Your task to perform on an android device: What's on my calendar tomorrow? Image 0: 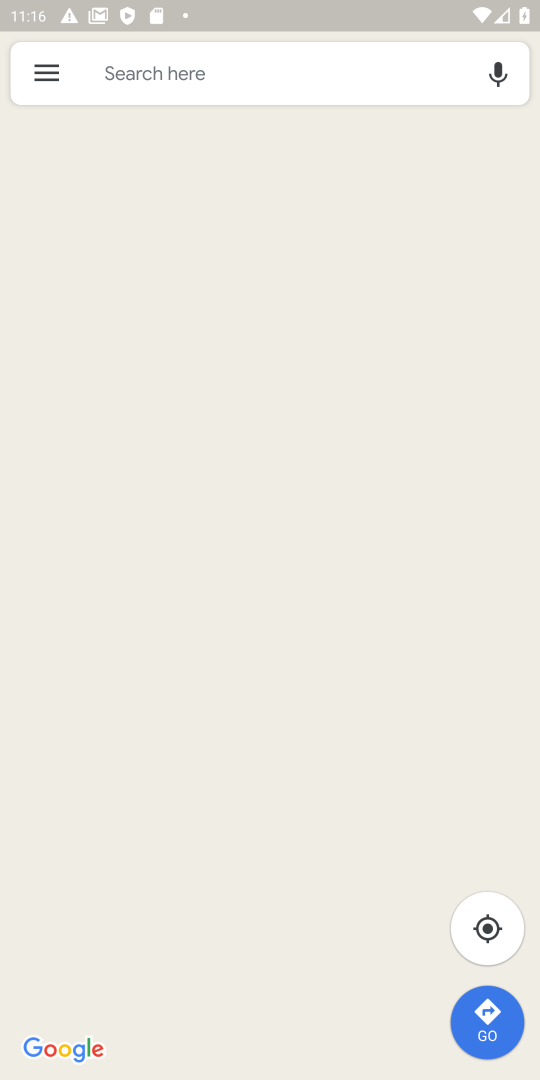
Step 0: click (254, 264)
Your task to perform on an android device: What's on my calendar tomorrow? Image 1: 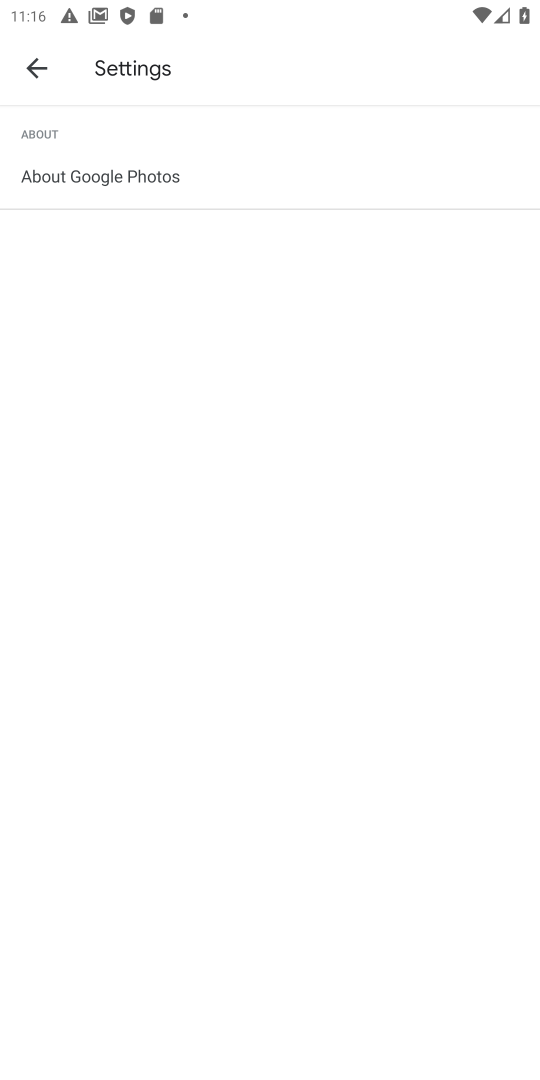
Step 1: press back button
Your task to perform on an android device: What's on my calendar tomorrow? Image 2: 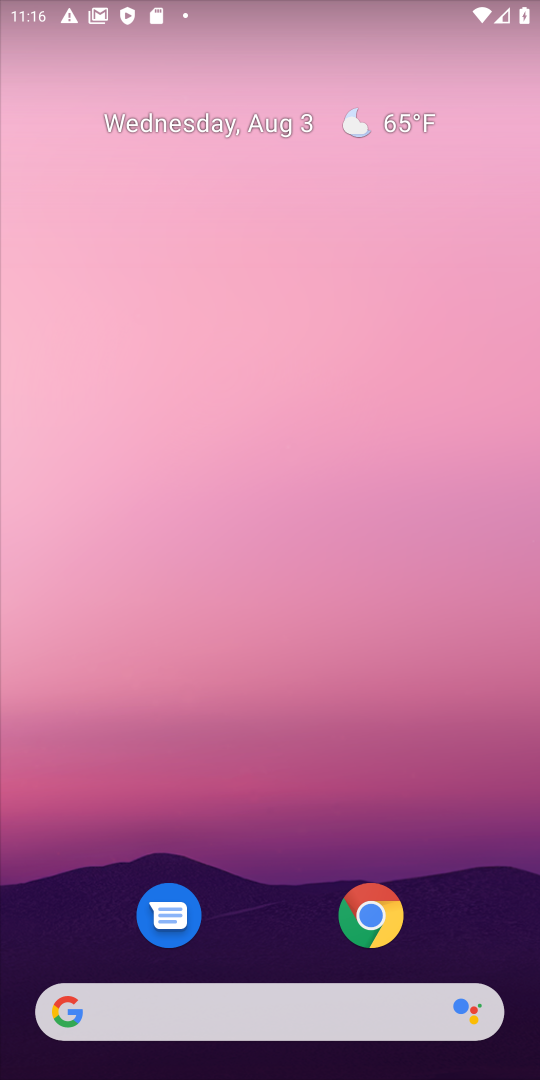
Step 2: drag from (267, 826) to (318, 120)
Your task to perform on an android device: What's on my calendar tomorrow? Image 3: 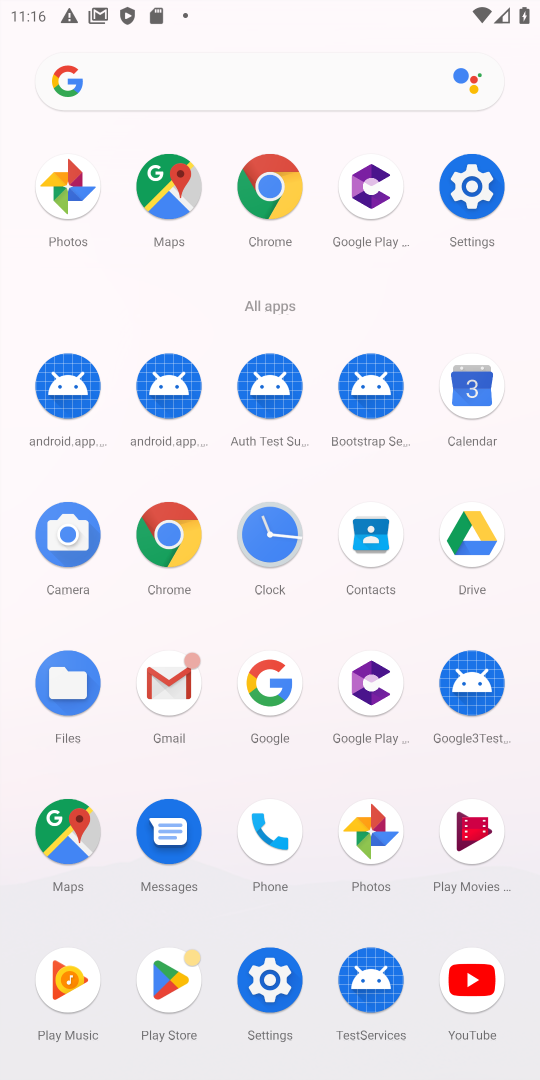
Step 3: click (453, 390)
Your task to perform on an android device: What's on my calendar tomorrow? Image 4: 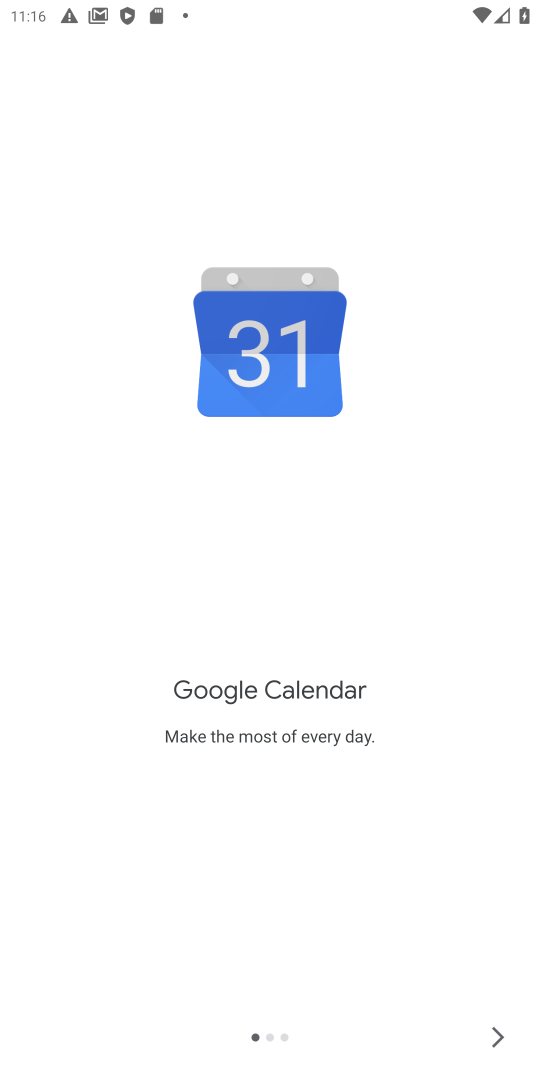
Step 4: click (499, 1044)
Your task to perform on an android device: What's on my calendar tomorrow? Image 5: 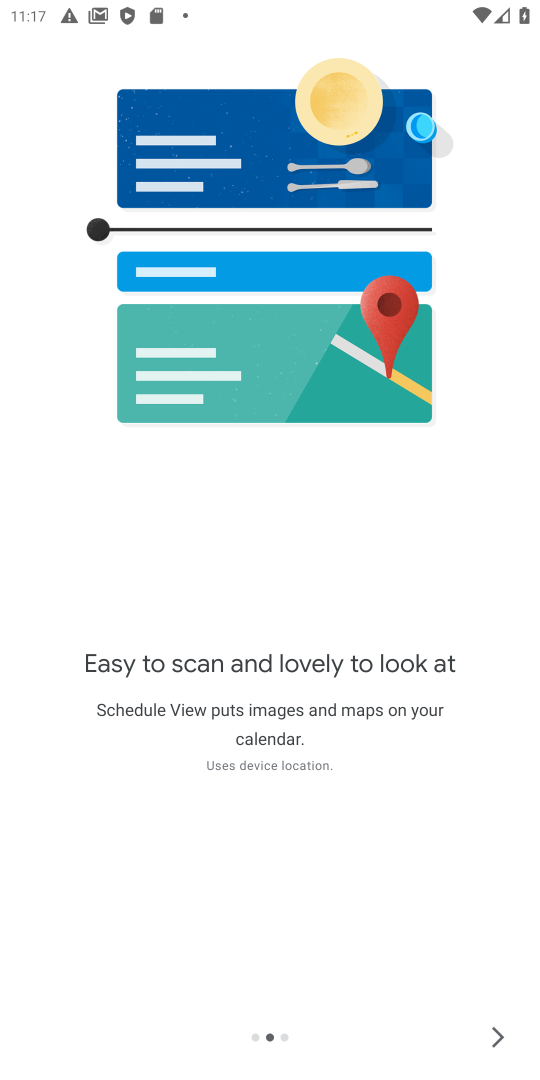
Step 5: click (499, 1044)
Your task to perform on an android device: What's on my calendar tomorrow? Image 6: 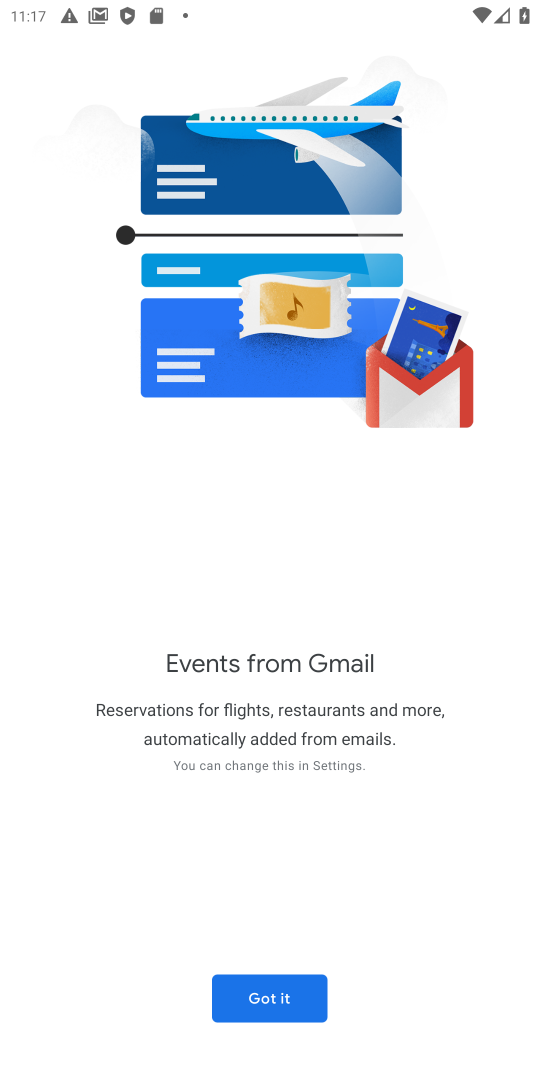
Step 6: click (265, 1006)
Your task to perform on an android device: What's on my calendar tomorrow? Image 7: 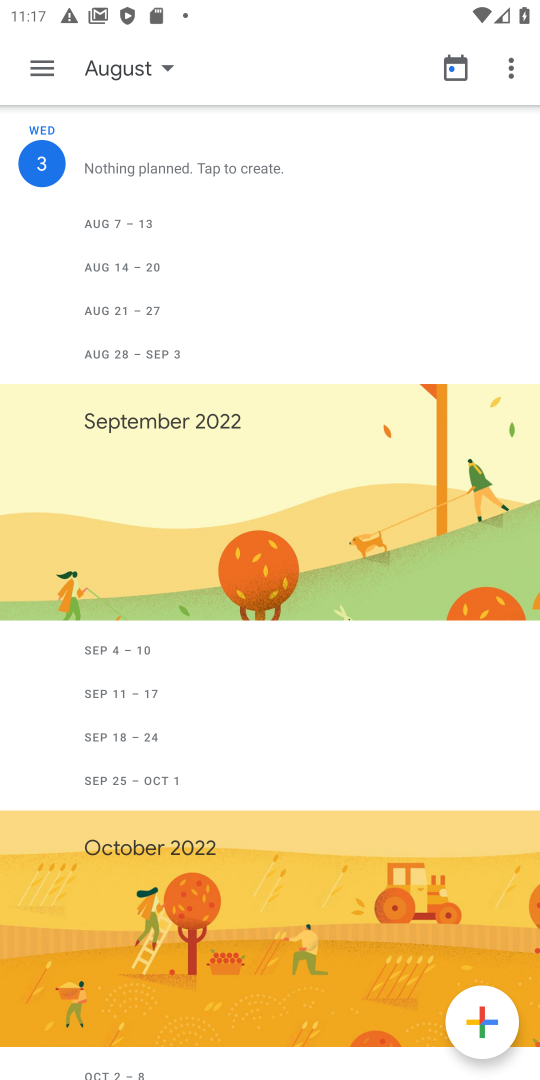
Step 7: click (87, 66)
Your task to perform on an android device: What's on my calendar tomorrow? Image 8: 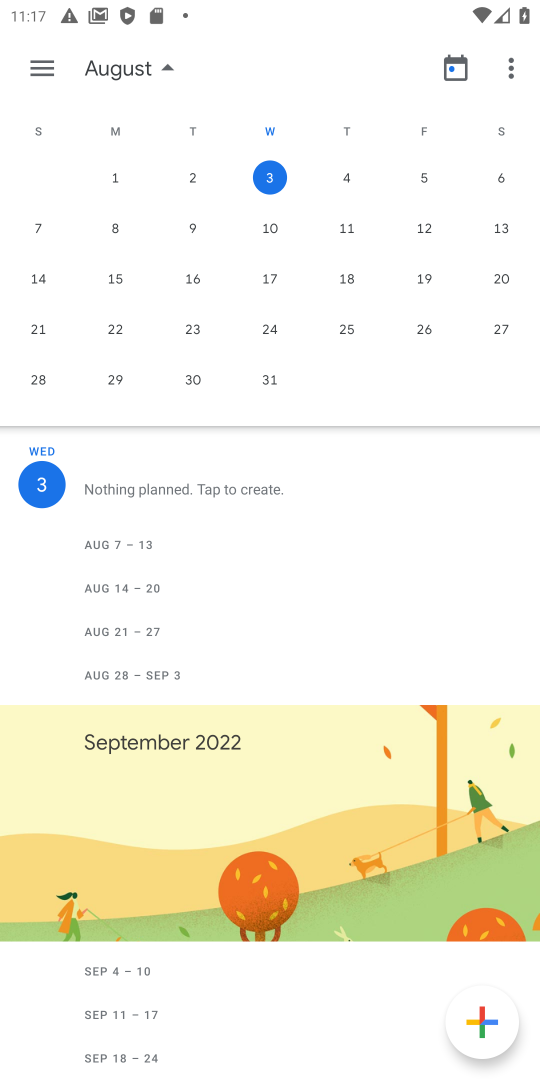
Step 8: click (344, 183)
Your task to perform on an android device: What's on my calendar tomorrow? Image 9: 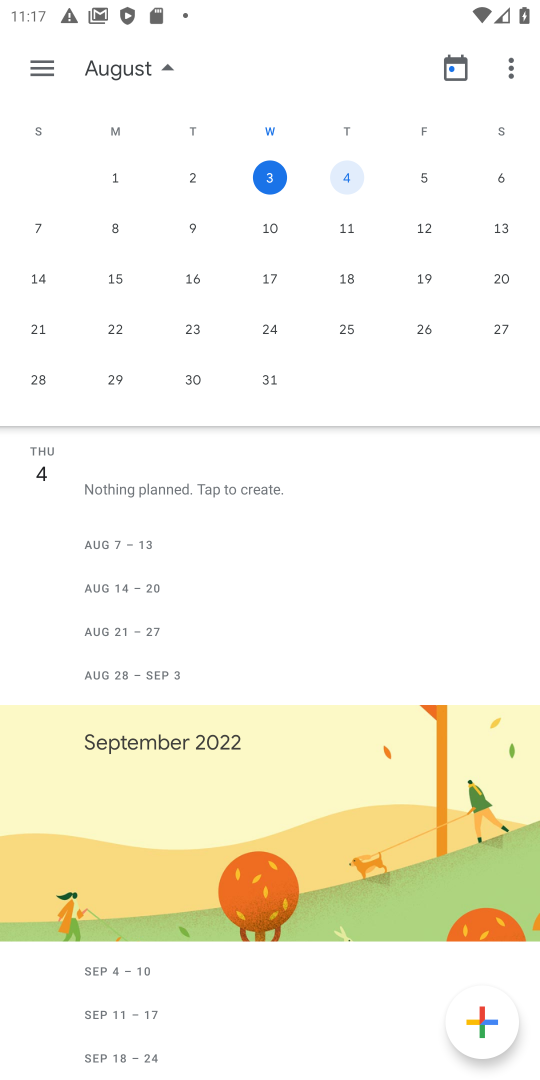
Step 9: task complete